Your task to perform on an android device: Search for the best selling jewelry on Etsy. Image 0: 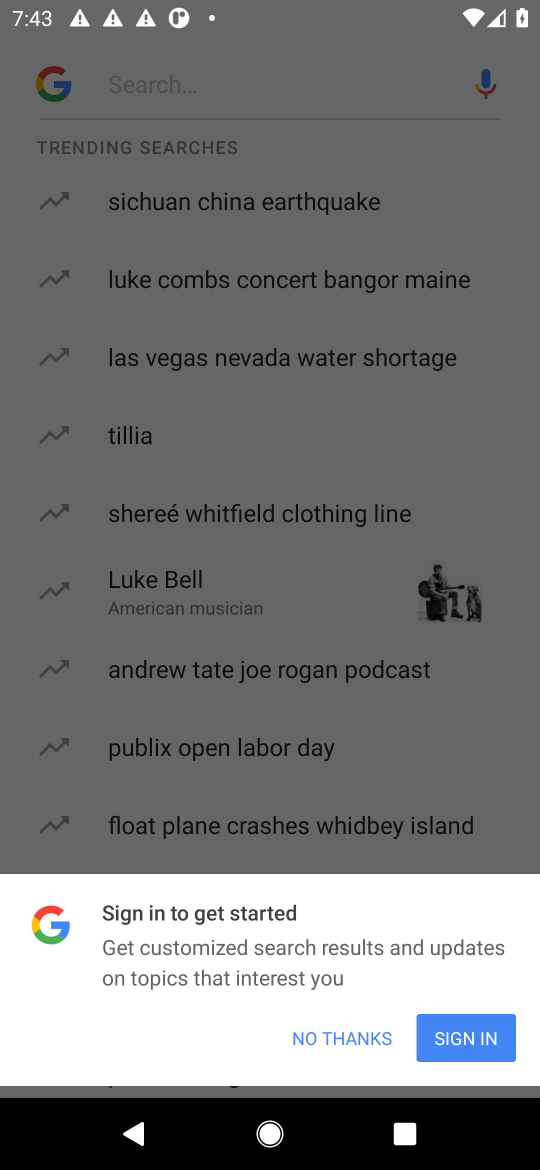
Step 0: press home button
Your task to perform on an android device: Search for the best selling jewelry on Etsy. Image 1: 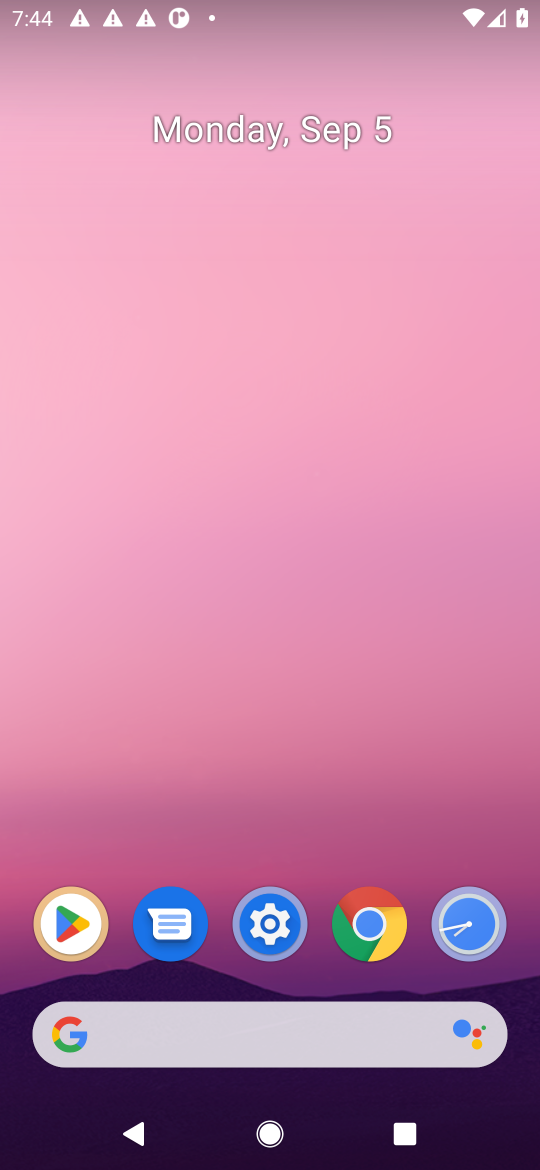
Step 1: click (329, 1037)
Your task to perform on an android device: Search for the best selling jewelry on Etsy. Image 2: 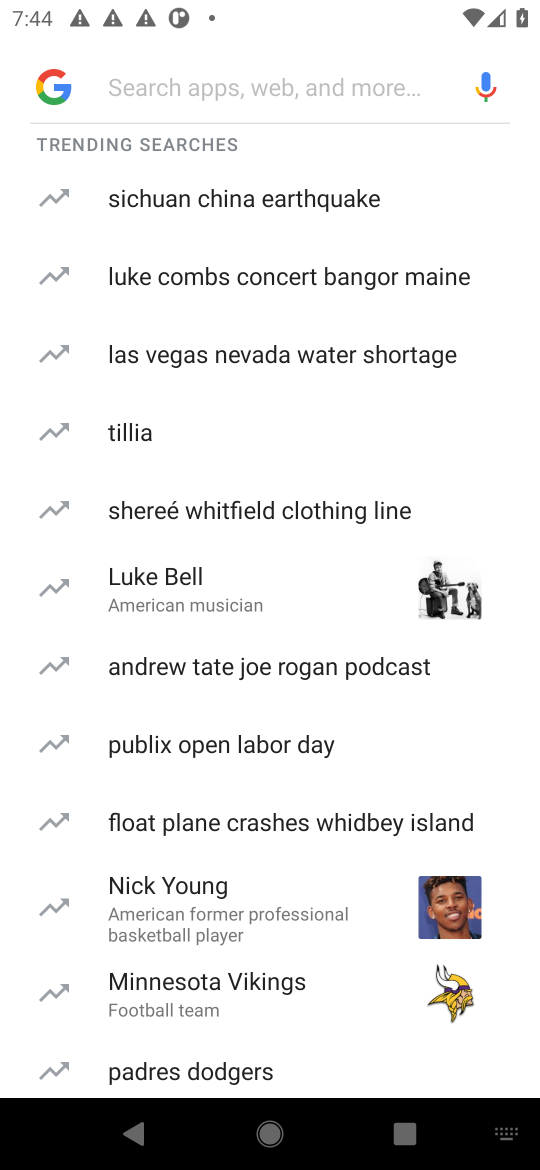
Step 2: type "etsy"
Your task to perform on an android device: Search for the best selling jewelry on Etsy. Image 3: 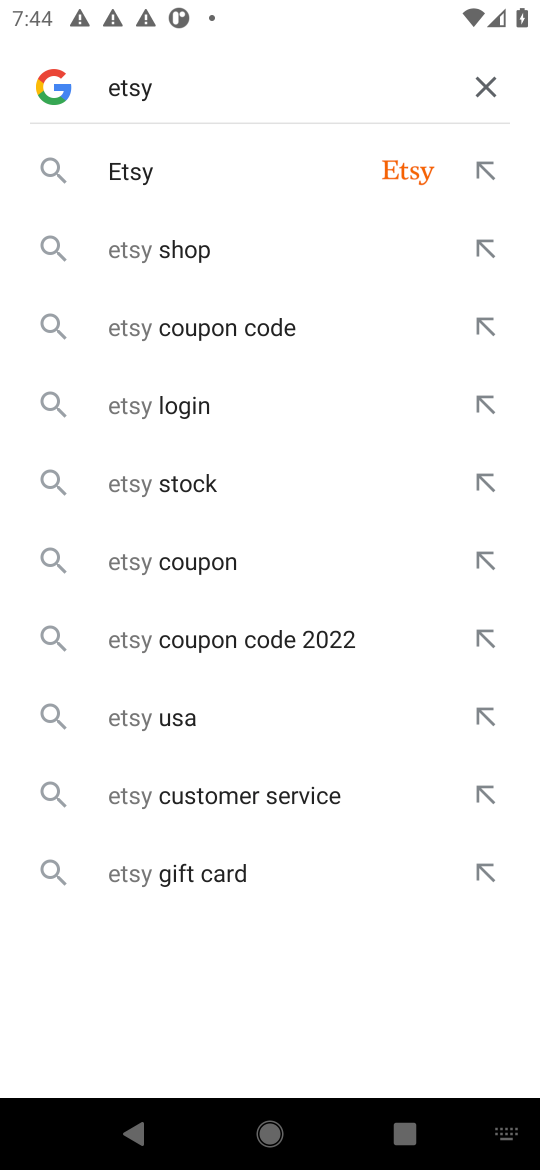
Step 3: press enter
Your task to perform on an android device: Search for the best selling jewelry on Etsy. Image 4: 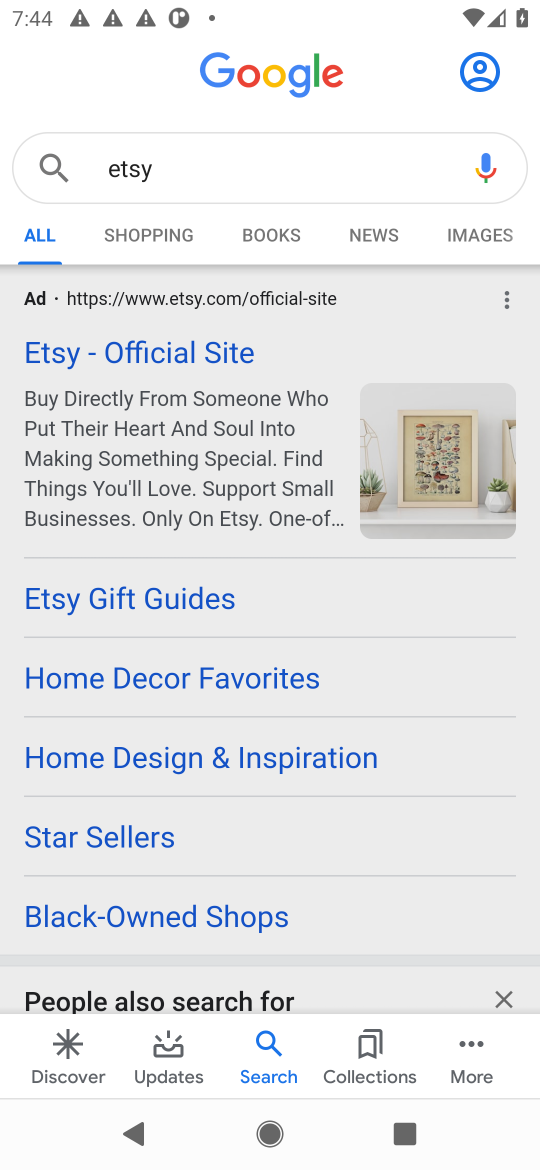
Step 4: click (179, 343)
Your task to perform on an android device: Search for the best selling jewelry on Etsy. Image 5: 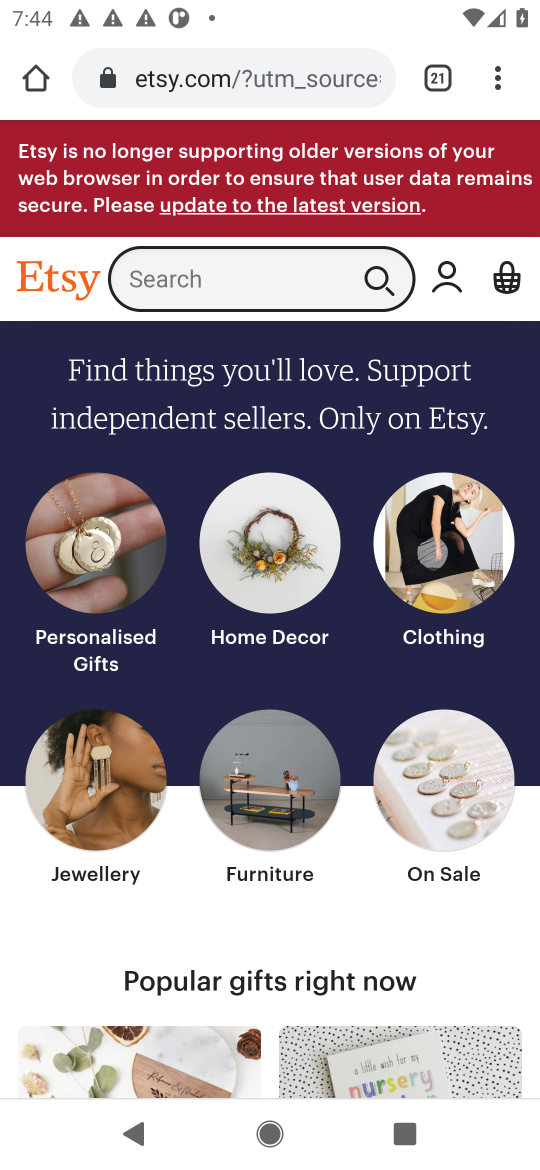
Step 5: click (216, 268)
Your task to perform on an android device: Search for the best selling jewelry on Etsy. Image 6: 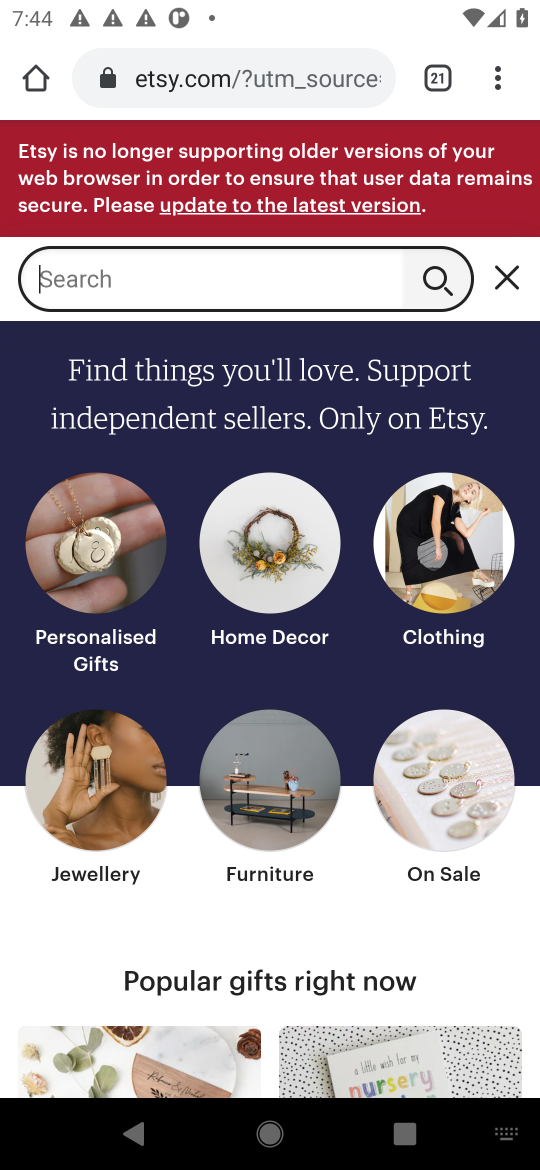
Step 6: type "best selling jewerly"
Your task to perform on an android device: Search for the best selling jewelry on Etsy. Image 7: 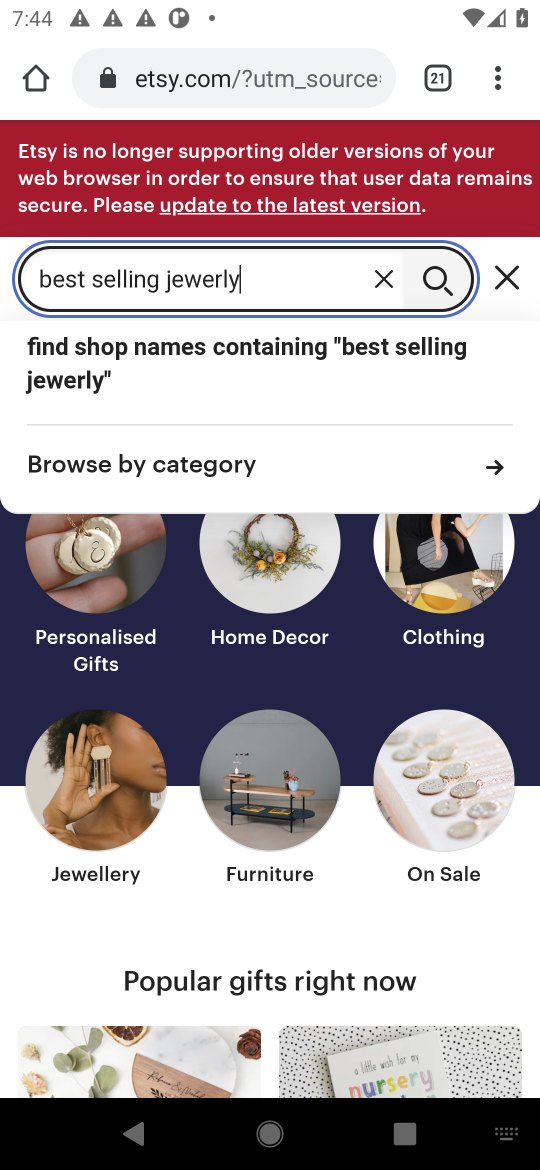
Step 7: click (433, 273)
Your task to perform on an android device: Search for the best selling jewelry on Etsy. Image 8: 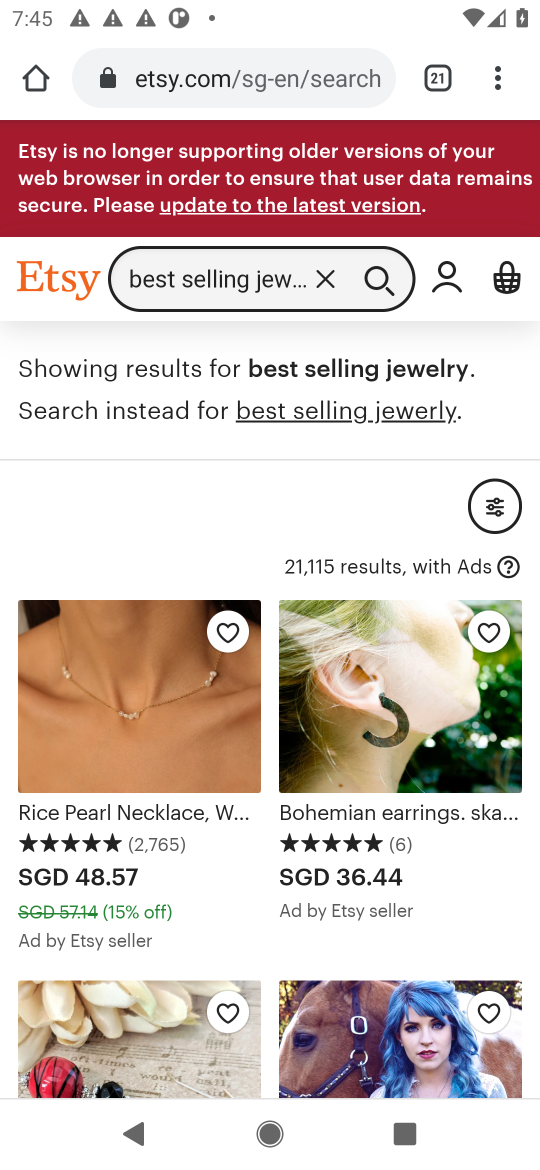
Step 8: task complete